Your task to perform on an android device: Open Wikipedia Image 0: 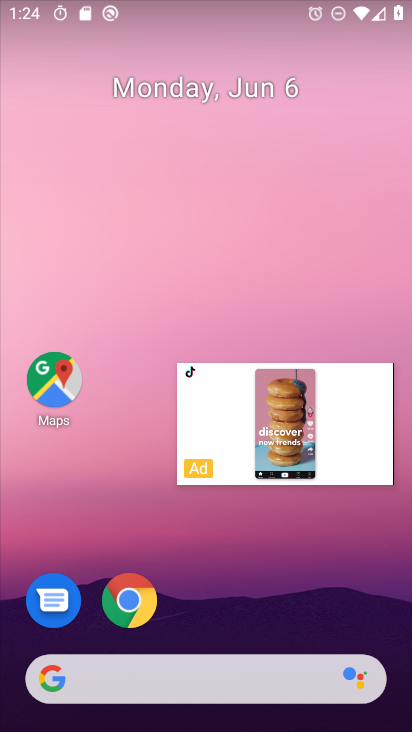
Step 0: click (382, 381)
Your task to perform on an android device: Open Wikipedia Image 1: 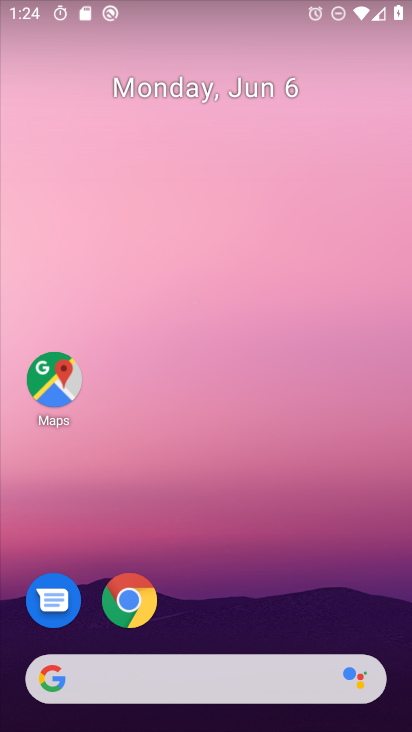
Step 1: drag from (256, 614) to (265, 170)
Your task to perform on an android device: Open Wikipedia Image 2: 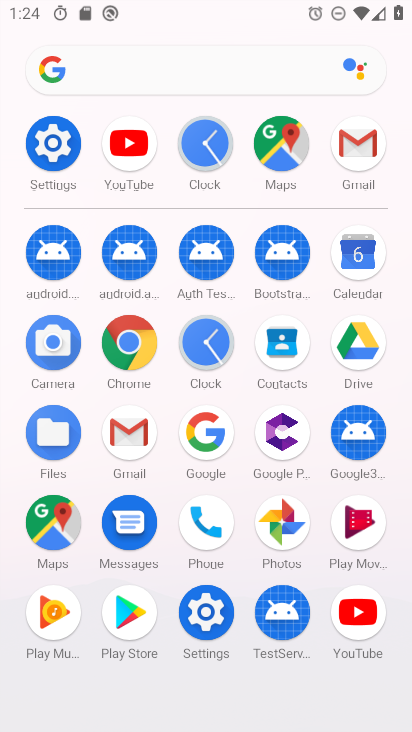
Step 2: click (143, 342)
Your task to perform on an android device: Open Wikipedia Image 3: 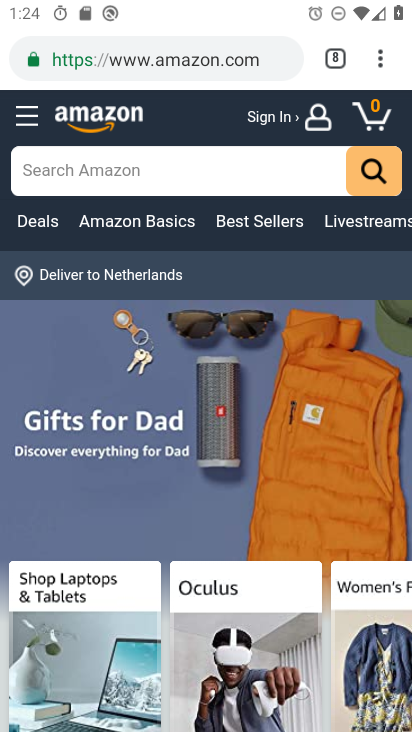
Step 3: click (326, 70)
Your task to perform on an android device: Open Wikipedia Image 4: 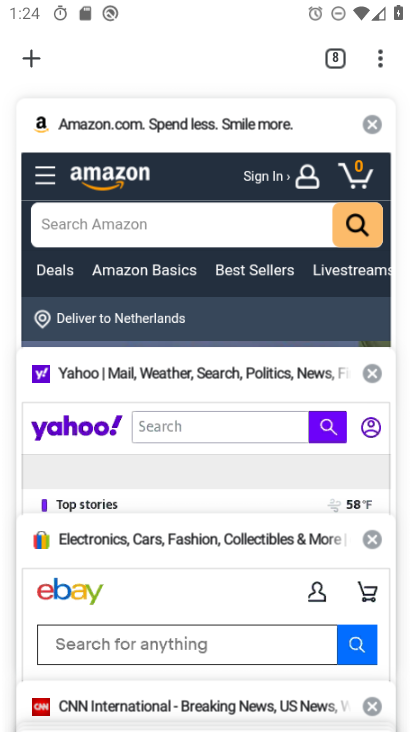
Step 4: click (33, 53)
Your task to perform on an android device: Open Wikipedia Image 5: 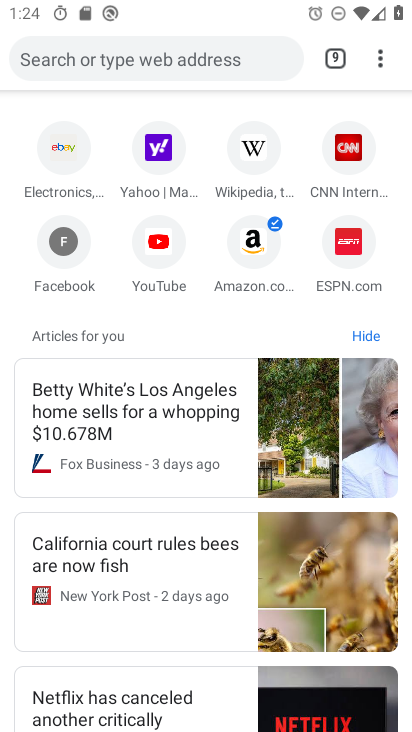
Step 5: click (181, 54)
Your task to perform on an android device: Open Wikipedia Image 6: 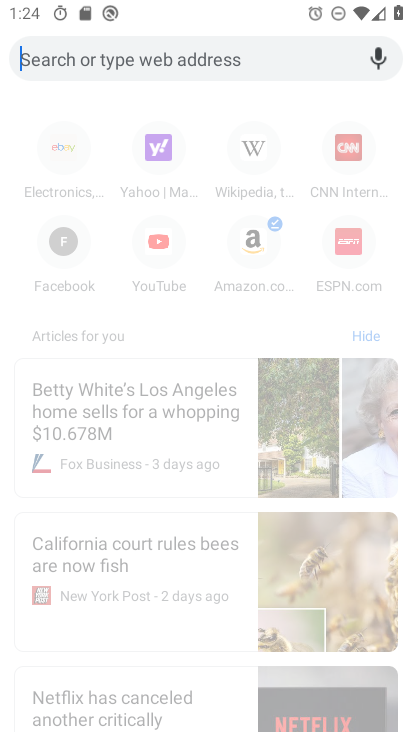
Step 6: click (261, 147)
Your task to perform on an android device: Open Wikipedia Image 7: 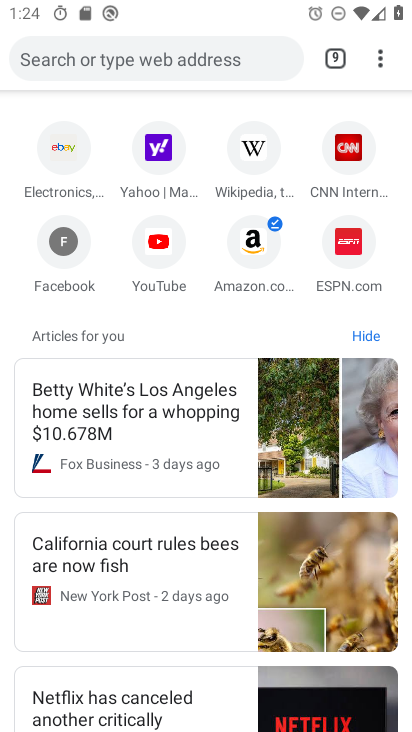
Step 7: click (260, 147)
Your task to perform on an android device: Open Wikipedia Image 8: 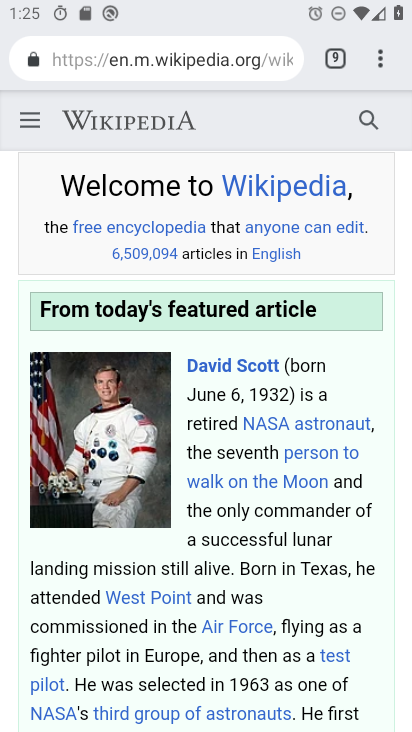
Step 8: task complete